Your task to perform on an android device: turn off airplane mode Image 0: 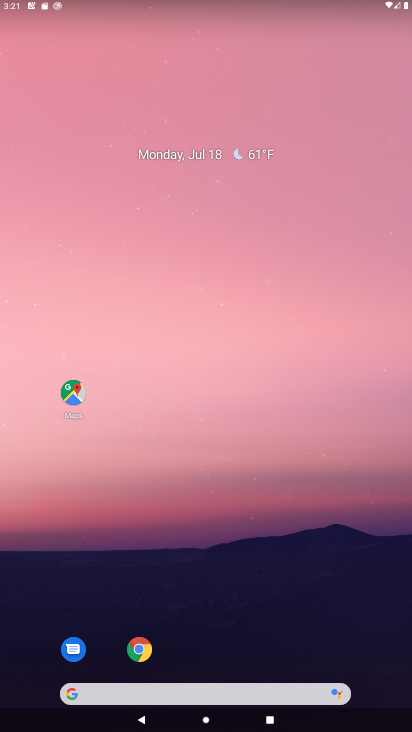
Step 0: drag from (237, 596) to (215, 288)
Your task to perform on an android device: turn off airplane mode Image 1: 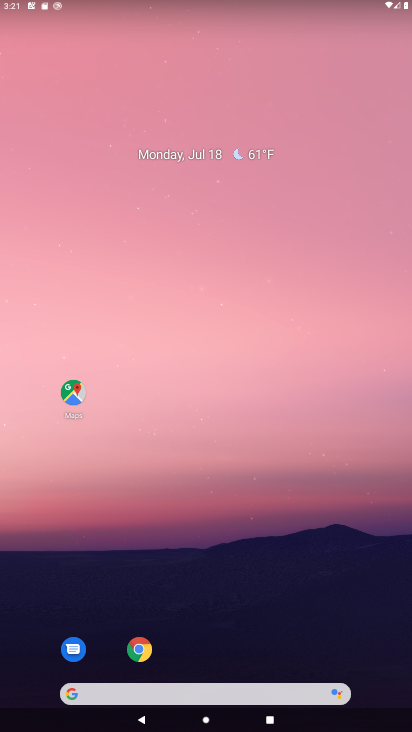
Step 1: drag from (233, 488) to (230, 19)
Your task to perform on an android device: turn off airplane mode Image 2: 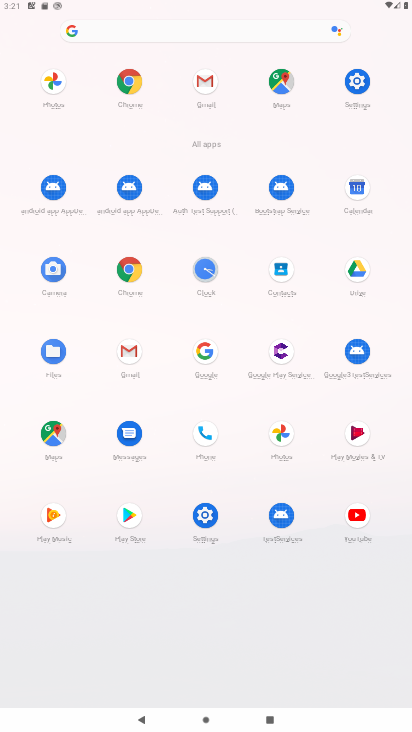
Step 2: click (366, 74)
Your task to perform on an android device: turn off airplane mode Image 3: 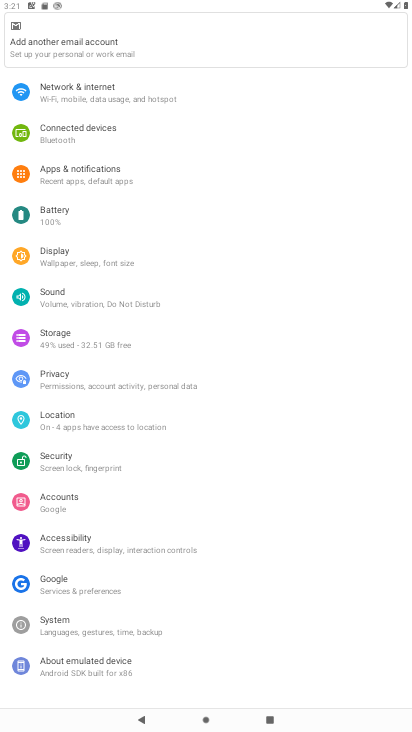
Step 3: click (79, 86)
Your task to perform on an android device: turn off airplane mode Image 4: 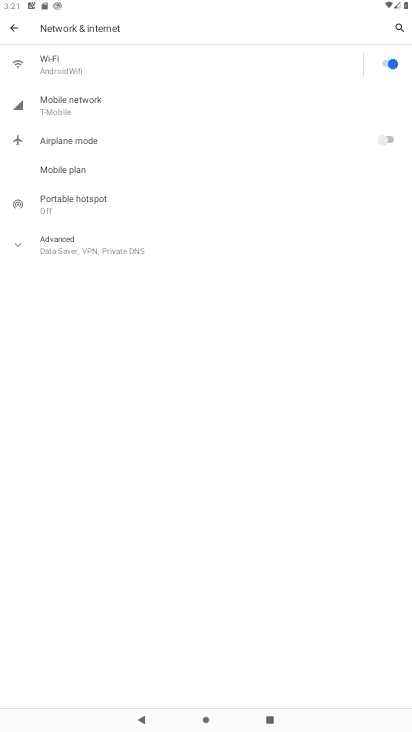
Step 4: task complete